Your task to perform on an android device: Check the weather Image 0: 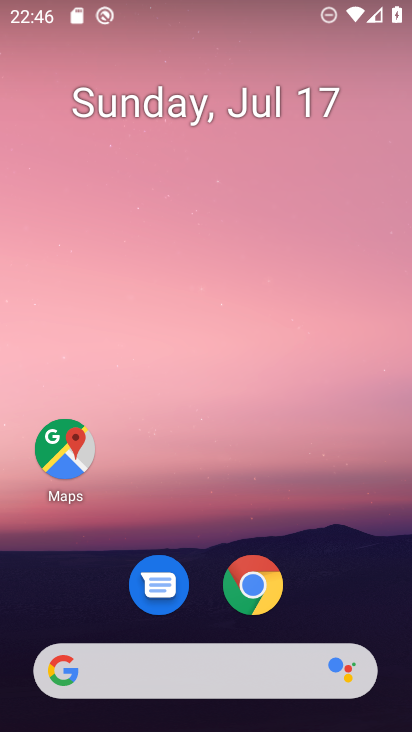
Step 0: press home button
Your task to perform on an android device: Check the weather Image 1: 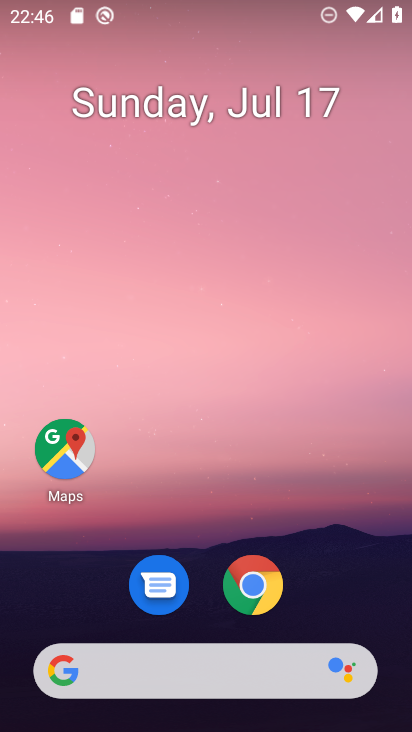
Step 1: click (154, 662)
Your task to perform on an android device: Check the weather Image 2: 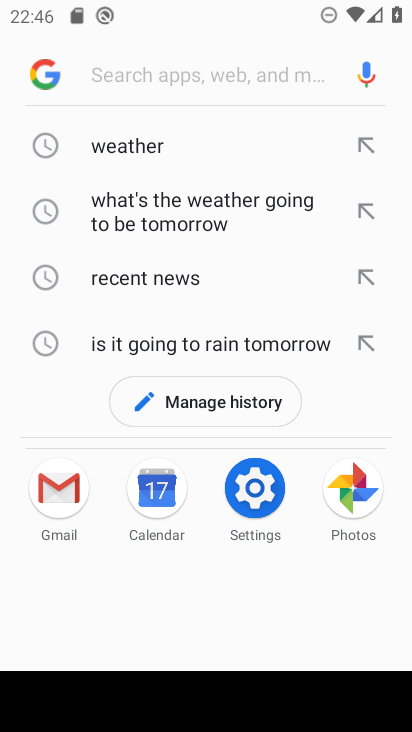
Step 2: click (134, 146)
Your task to perform on an android device: Check the weather Image 3: 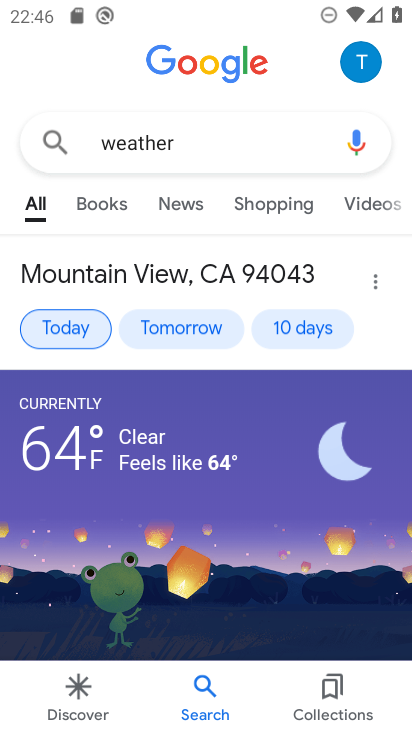
Step 3: task complete